Your task to perform on an android device: Open battery settings Image 0: 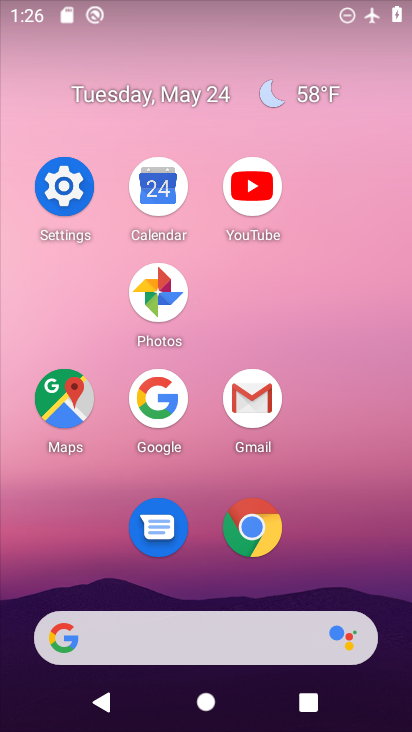
Step 0: click (79, 175)
Your task to perform on an android device: Open battery settings Image 1: 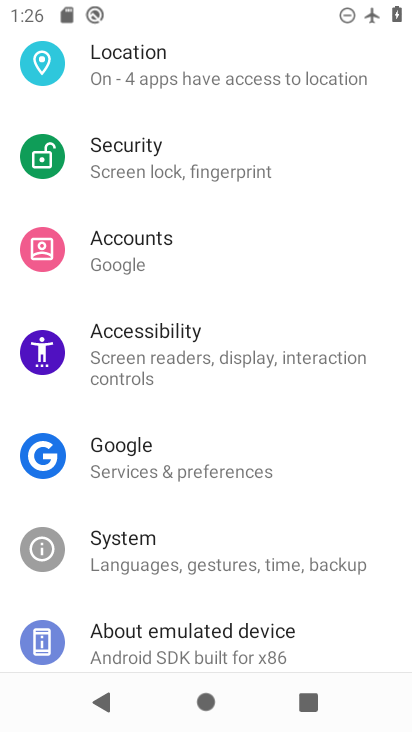
Step 1: drag from (198, 200) to (168, 641)
Your task to perform on an android device: Open battery settings Image 2: 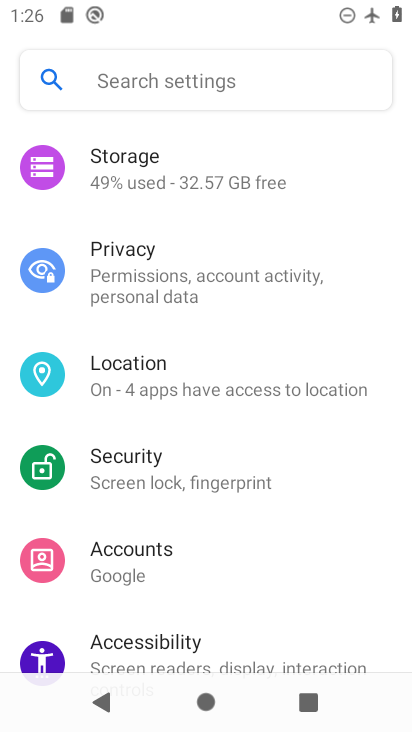
Step 2: drag from (224, 172) to (210, 691)
Your task to perform on an android device: Open battery settings Image 3: 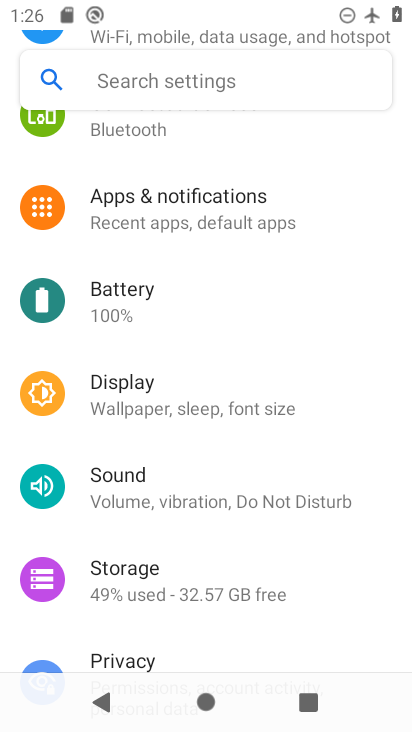
Step 3: drag from (226, 180) to (223, 539)
Your task to perform on an android device: Open battery settings Image 4: 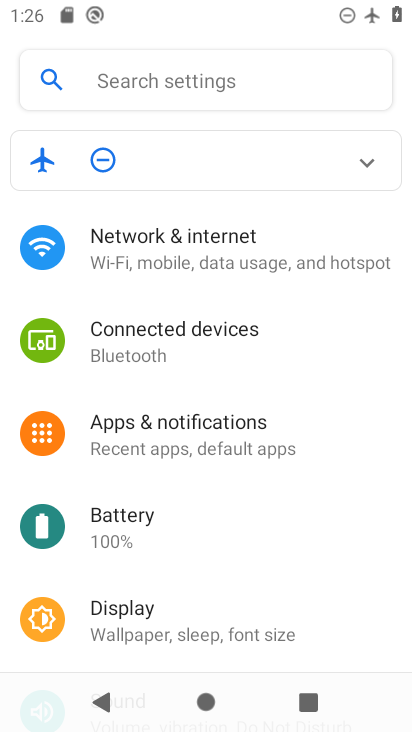
Step 4: click (202, 542)
Your task to perform on an android device: Open battery settings Image 5: 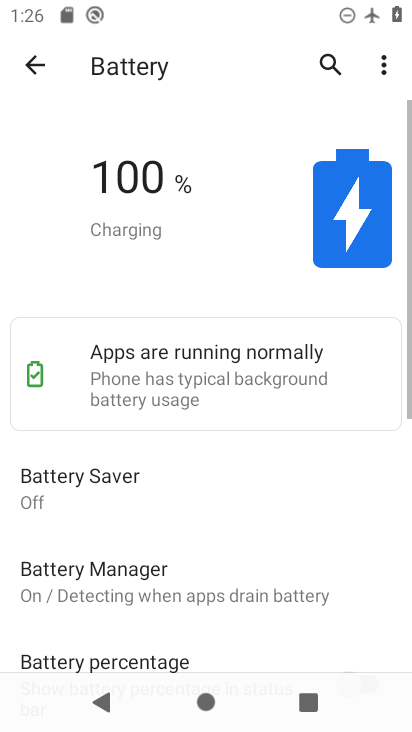
Step 5: task complete